Your task to perform on an android device: toggle improve location accuracy Image 0: 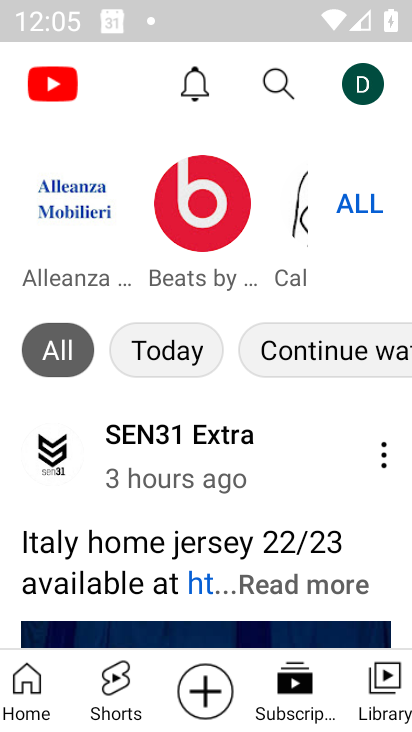
Step 0: press home button
Your task to perform on an android device: toggle improve location accuracy Image 1: 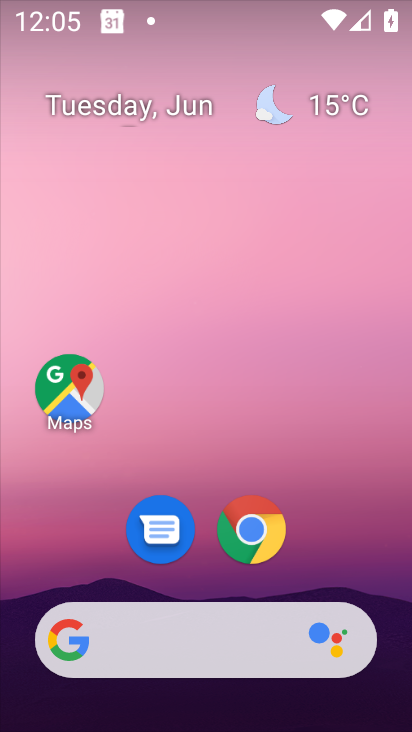
Step 1: drag from (81, 573) to (239, 102)
Your task to perform on an android device: toggle improve location accuracy Image 2: 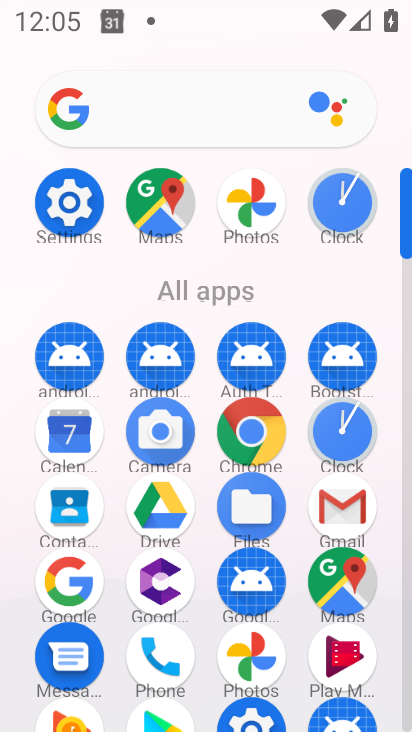
Step 2: drag from (184, 654) to (268, 416)
Your task to perform on an android device: toggle improve location accuracy Image 3: 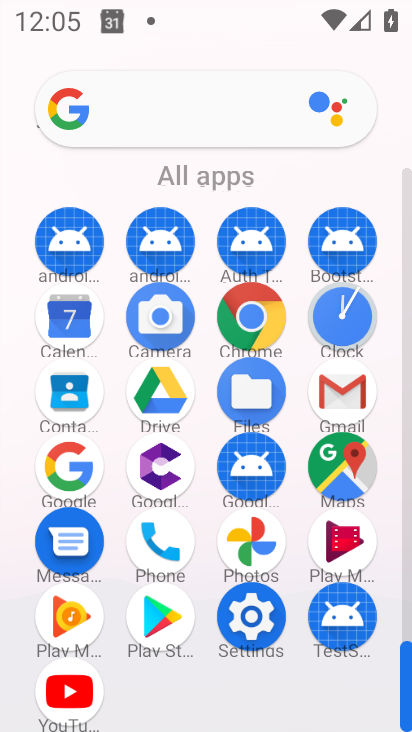
Step 3: click (262, 625)
Your task to perform on an android device: toggle improve location accuracy Image 4: 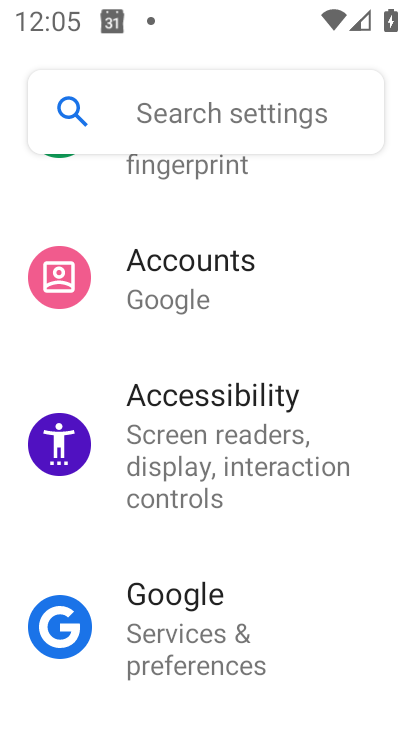
Step 4: drag from (237, 316) to (245, 658)
Your task to perform on an android device: toggle improve location accuracy Image 5: 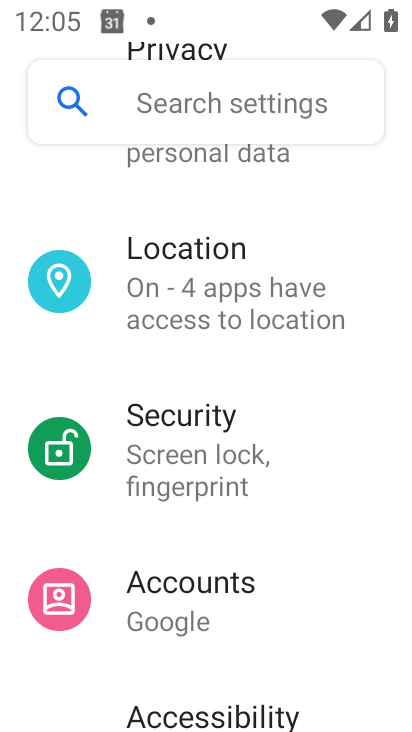
Step 5: click (244, 356)
Your task to perform on an android device: toggle improve location accuracy Image 6: 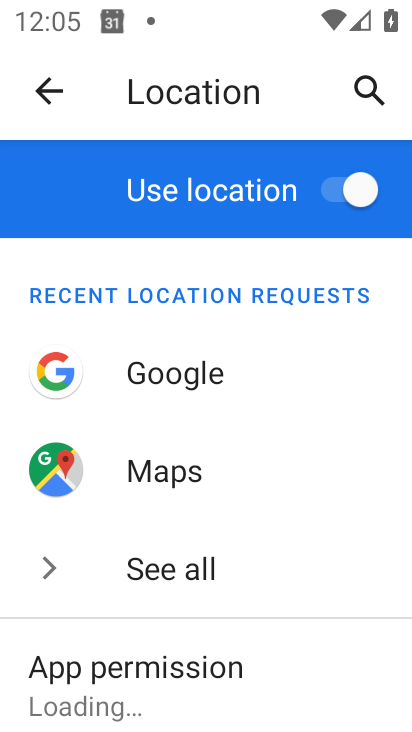
Step 6: drag from (257, 594) to (327, 214)
Your task to perform on an android device: toggle improve location accuracy Image 7: 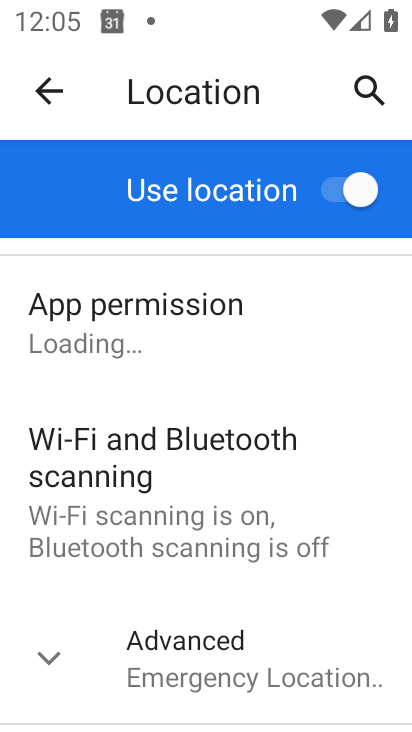
Step 7: click (229, 663)
Your task to perform on an android device: toggle improve location accuracy Image 8: 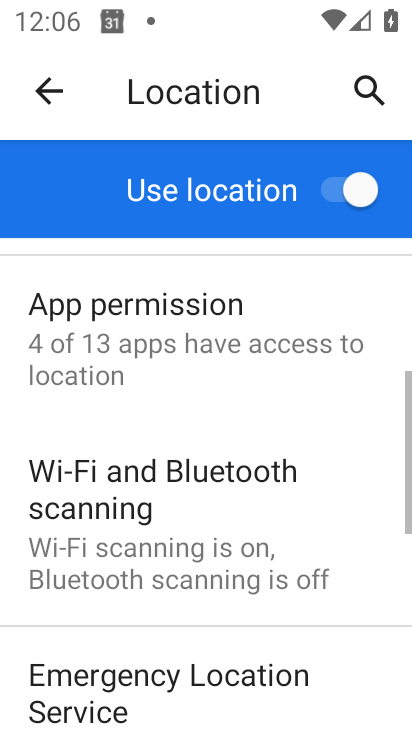
Step 8: drag from (231, 645) to (341, 295)
Your task to perform on an android device: toggle improve location accuracy Image 9: 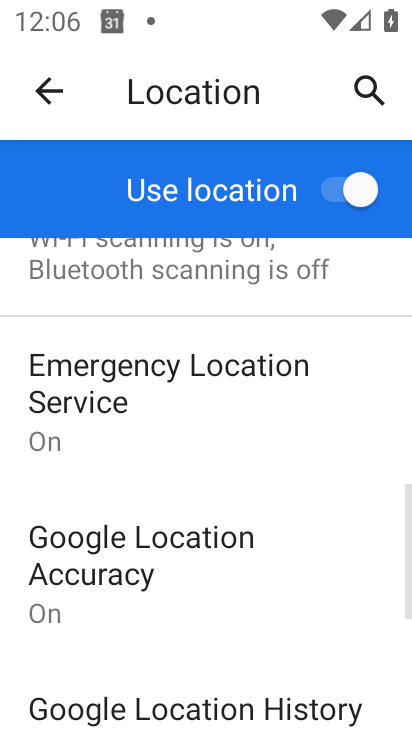
Step 9: drag from (268, 686) to (296, 452)
Your task to perform on an android device: toggle improve location accuracy Image 10: 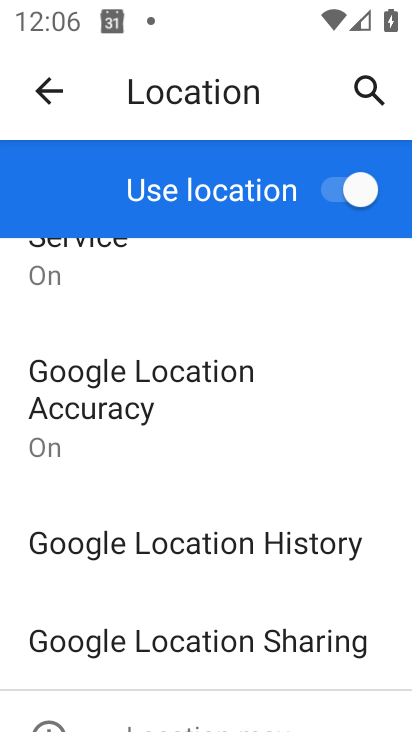
Step 10: click (236, 436)
Your task to perform on an android device: toggle improve location accuracy Image 11: 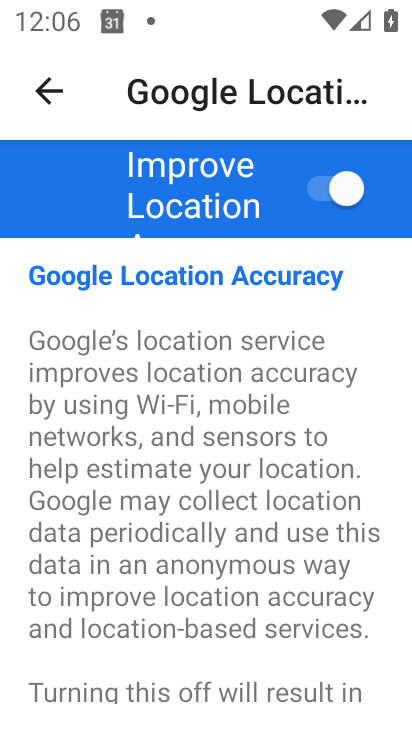
Step 11: click (316, 198)
Your task to perform on an android device: toggle improve location accuracy Image 12: 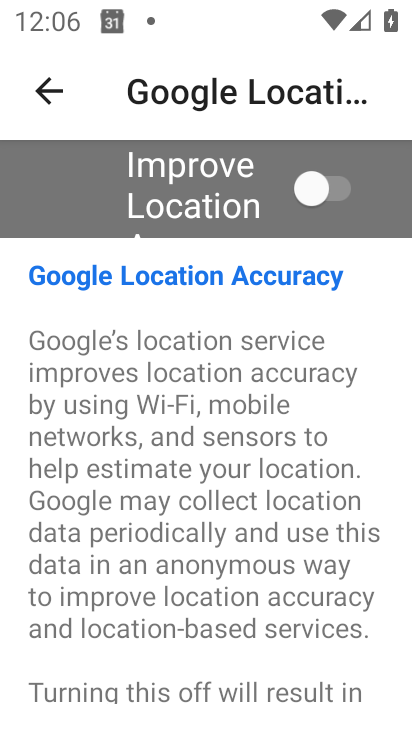
Step 12: task complete